Your task to perform on an android device: Search for seafood restaurants on Google Maps Image 0: 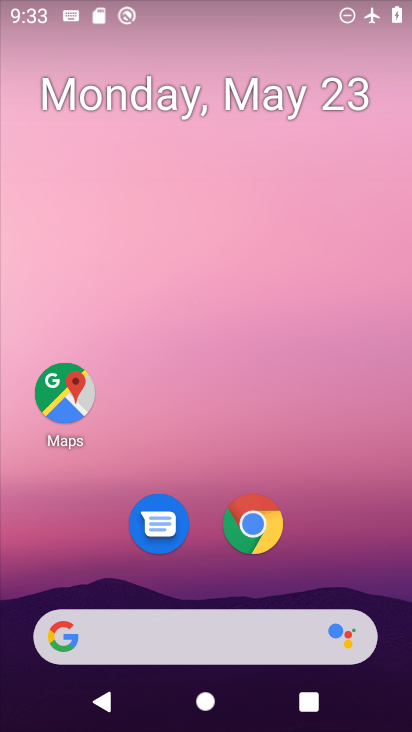
Step 0: click (70, 392)
Your task to perform on an android device: Search for seafood restaurants on Google Maps Image 1: 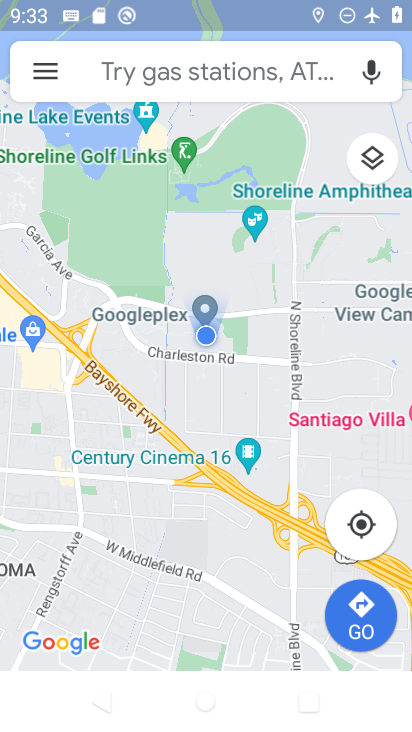
Step 1: click (251, 62)
Your task to perform on an android device: Search for seafood restaurants on Google Maps Image 2: 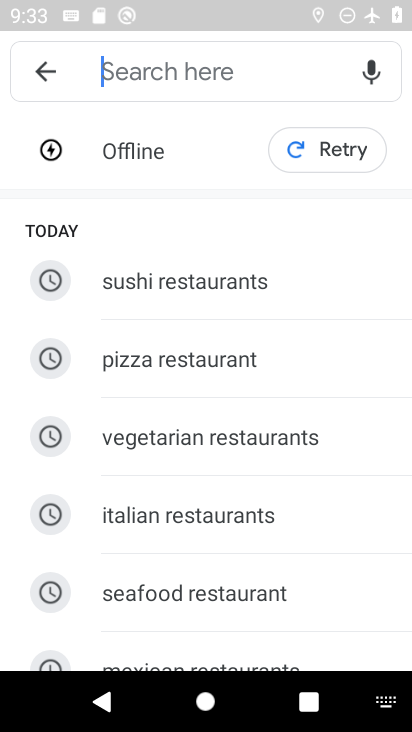
Step 2: click (210, 581)
Your task to perform on an android device: Search for seafood restaurants on Google Maps Image 3: 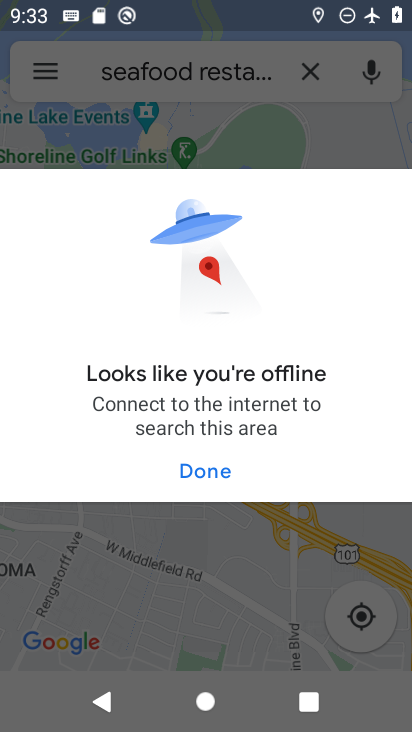
Step 3: task complete